Your task to perform on an android device: Show me popular videos on Youtube Image 0: 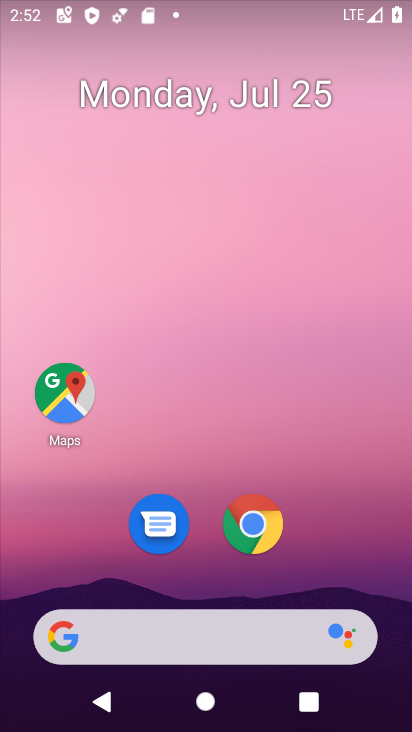
Step 0: drag from (316, 411) to (321, 5)
Your task to perform on an android device: Show me popular videos on Youtube Image 1: 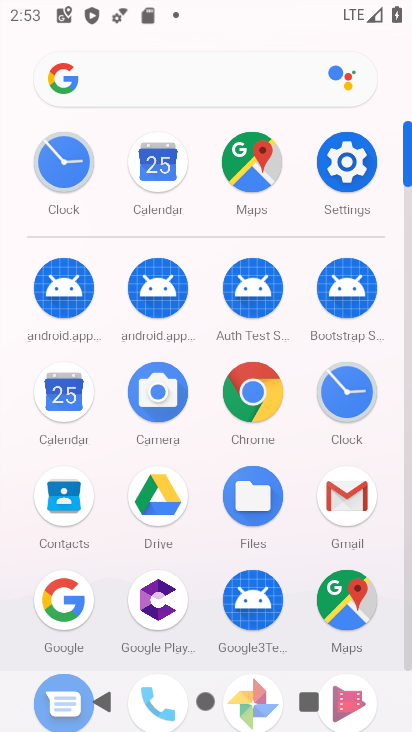
Step 1: drag from (300, 528) to (316, 114)
Your task to perform on an android device: Show me popular videos on Youtube Image 2: 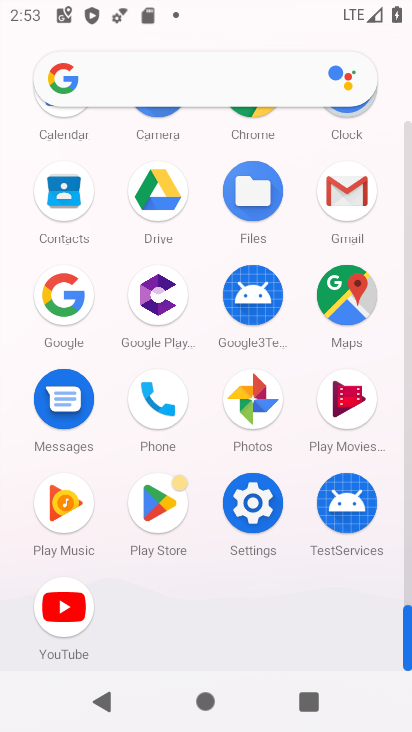
Step 2: click (62, 596)
Your task to perform on an android device: Show me popular videos on Youtube Image 3: 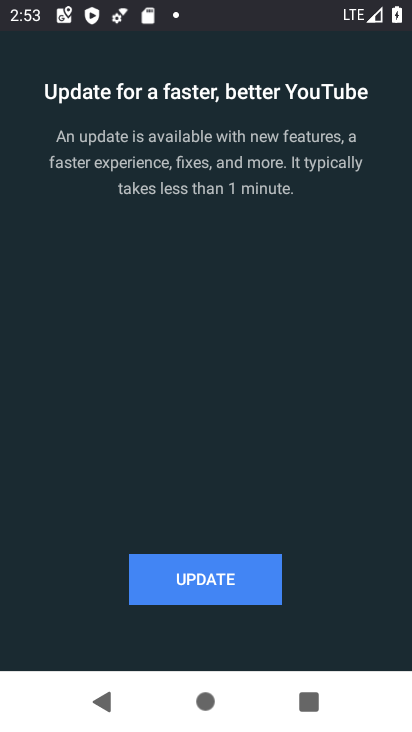
Step 3: click (192, 588)
Your task to perform on an android device: Show me popular videos on Youtube Image 4: 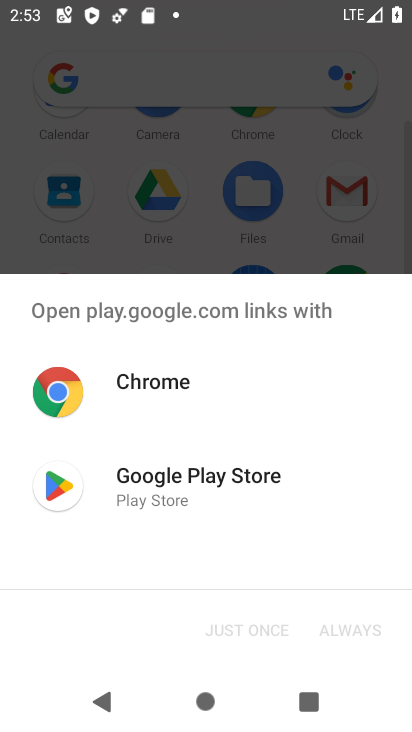
Step 4: click (167, 482)
Your task to perform on an android device: Show me popular videos on Youtube Image 5: 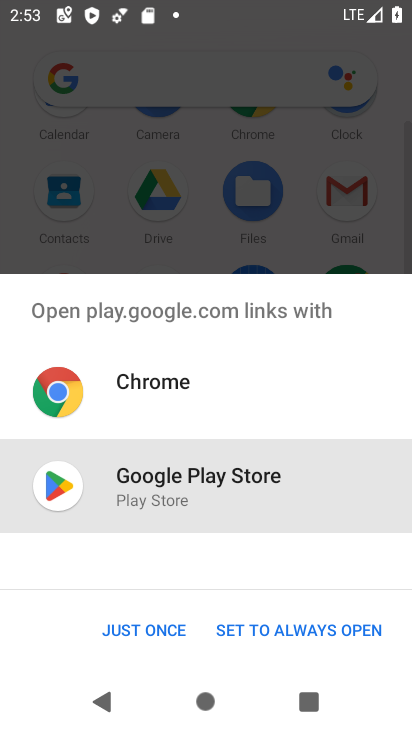
Step 5: click (150, 624)
Your task to perform on an android device: Show me popular videos on Youtube Image 6: 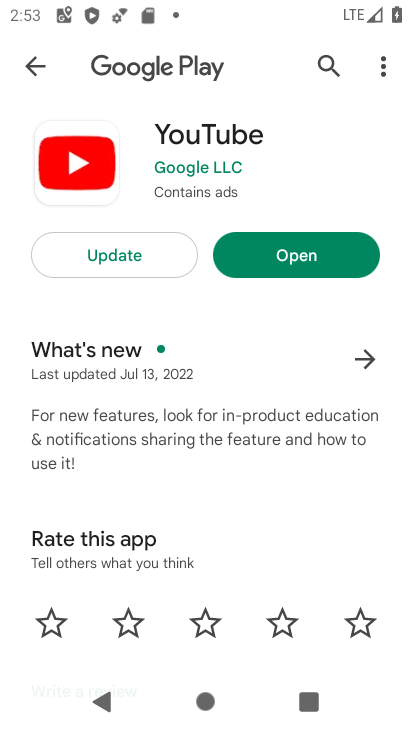
Step 6: click (149, 253)
Your task to perform on an android device: Show me popular videos on Youtube Image 7: 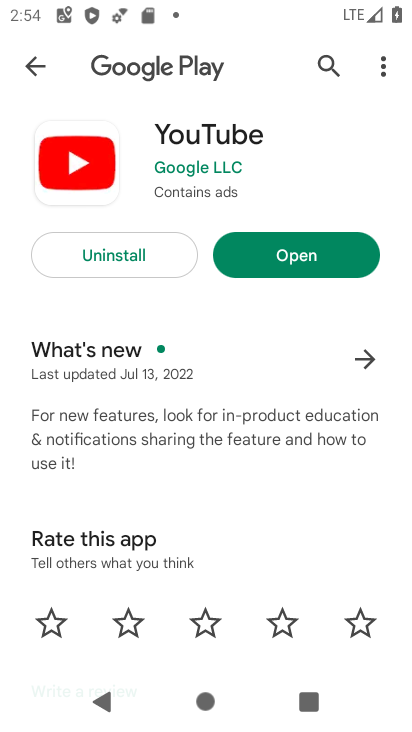
Step 7: click (345, 263)
Your task to perform on an android device: Show me popular videos on Youtube Image 8: 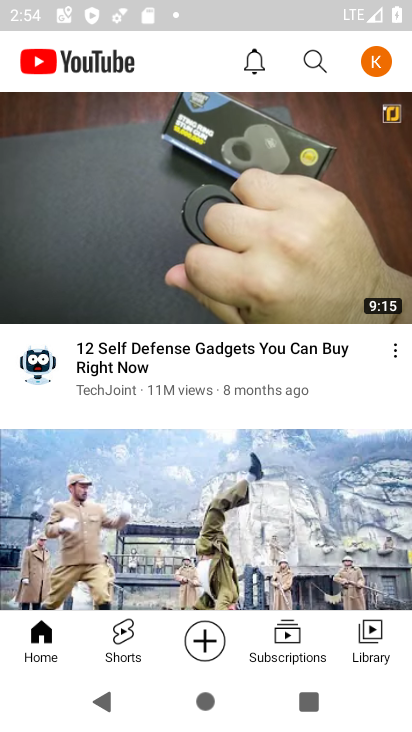
Step 8: click (314, 51)
Your task to perform on an android device: Show me popular videos on Youtube Image 9: 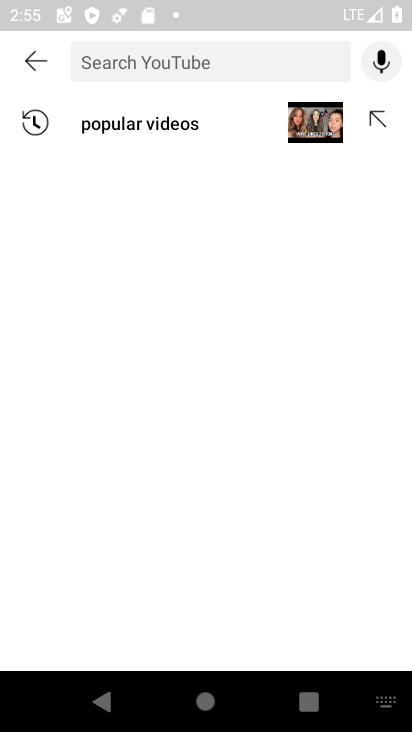
Step 9: click (156, 124)
Your task to perform on an android device: Show me popular videos on Youtube Image 10: 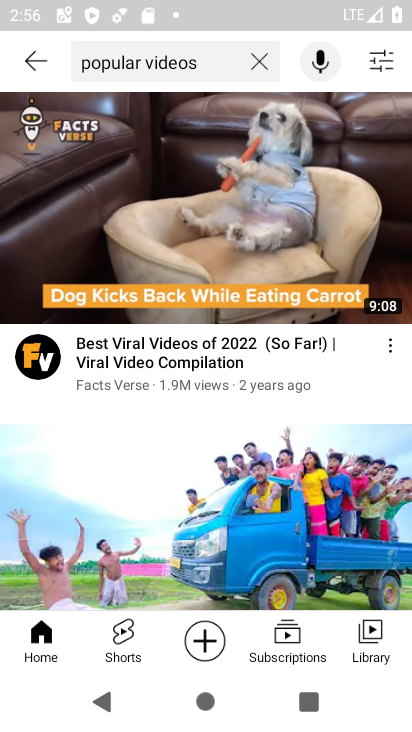
Step 10: task complete